Your task to perform on an android device: When is my next appointment? Image 0: 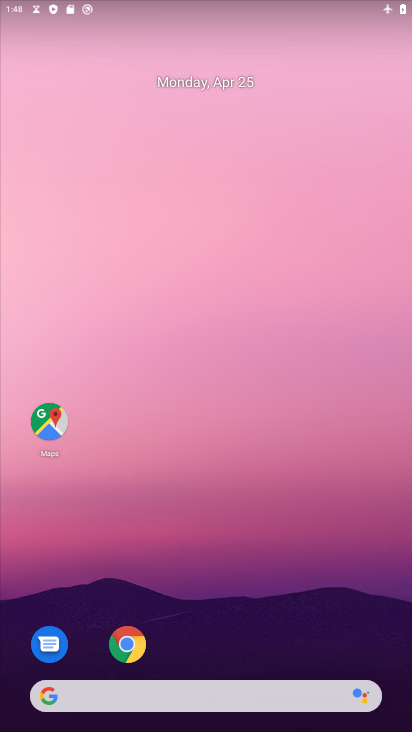
Step 0: drag from (355, 603) to (362, 42)
Your task to perform on an android device: When is my next appointment? Image 1: 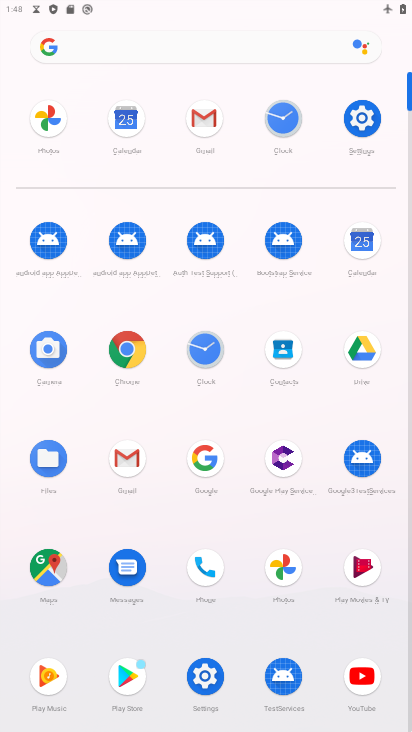
Step 1: click (130, 122)
Your task to perform on an android device: When is my next appointment? Image 2: 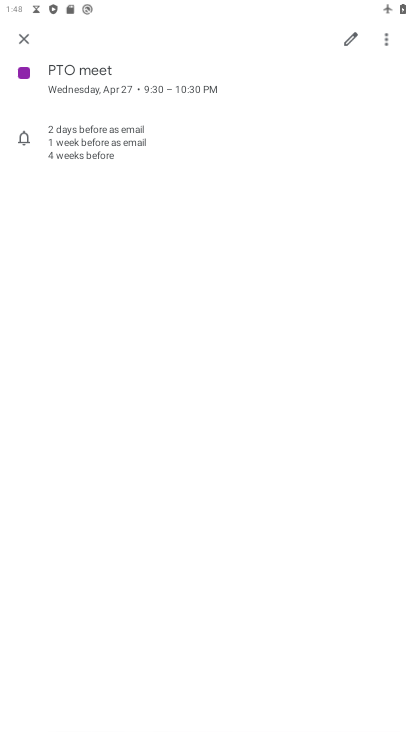
Step 2: task complete